Your task to perform on an android device: Go to Google Image 0: 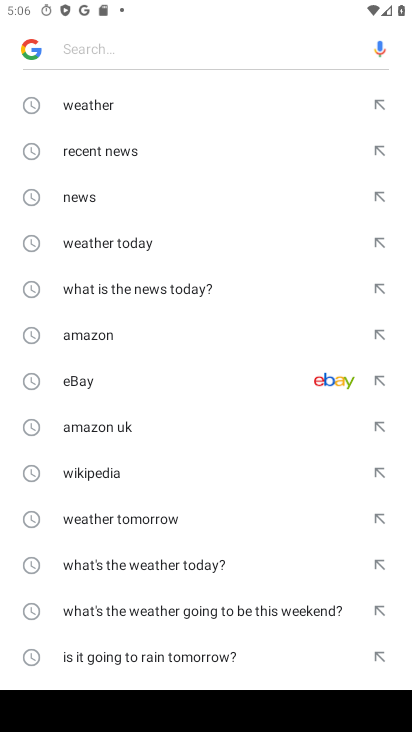
Step 0: press home button
Your task to perform on an android device: Go to Google Image 1: 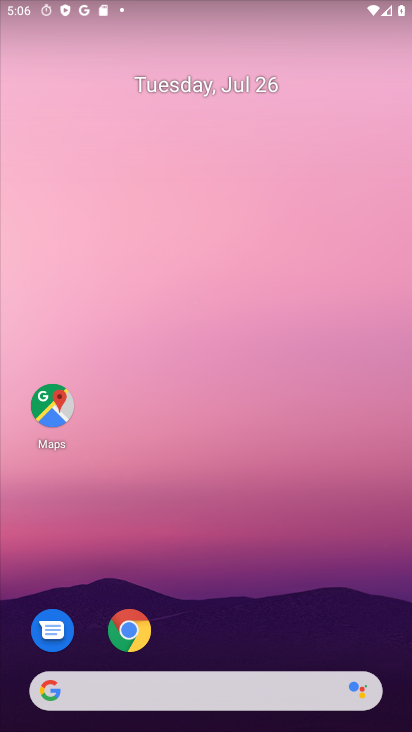
Step 1: drag from (244, 599) to (239, 0)
Your task to perform on an android device: Go to Google Image 2: 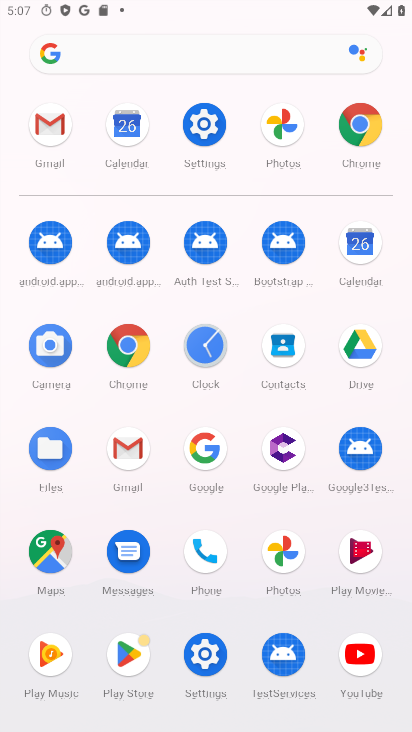
Step 2: click (199, 450)
Your task to perform on an android device: Go to Google Image 3: 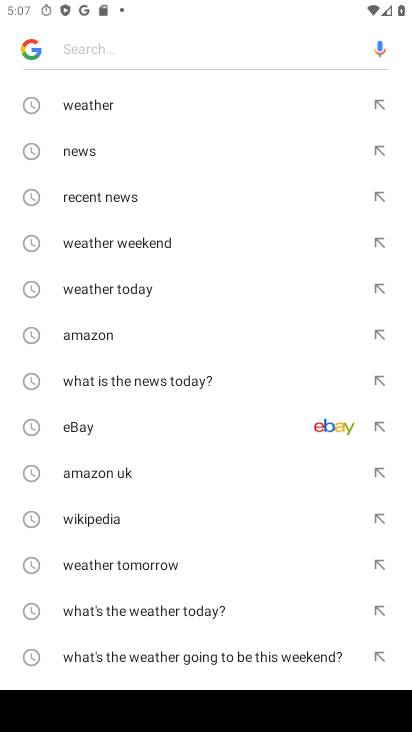
Step 3: task complete